Your task to perform on an android device: Open CNN.com Image 0: 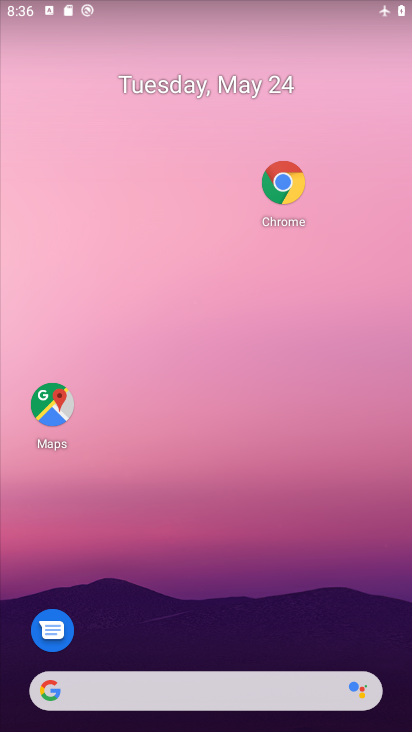
Step 0: drag from (191, 694) to (245, 55)
Your task to perform on an android device: Open CNN.com Image 1: 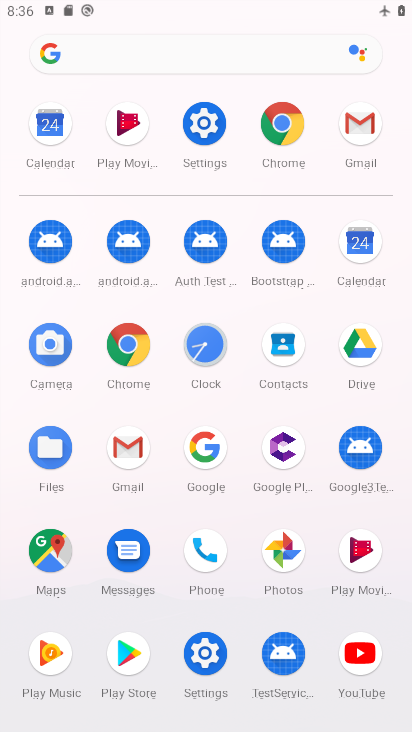
Step 1: click (136, 358)
Your task to perform on an android device: Open CNN.com Image 2: 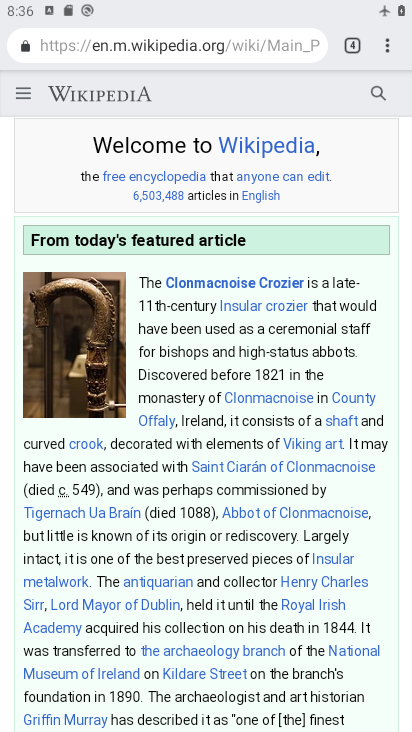
Step 2: click (188, 58)
Your task to perform on an android device: Open CNN.com Image 3: 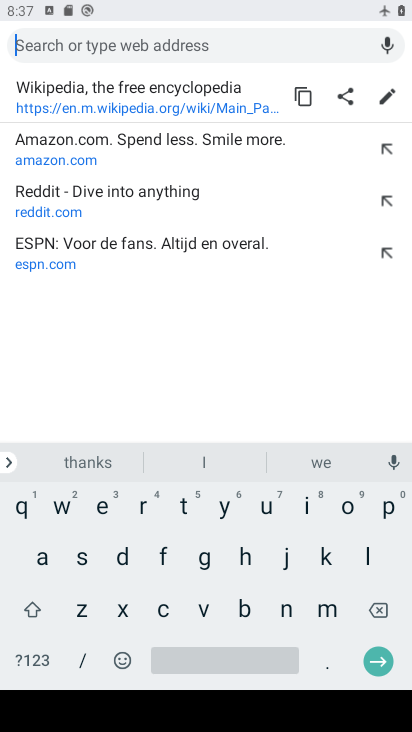
Step 3: click (163, 613)
Your task to perform on an android device: Open CNN.com Image 4: 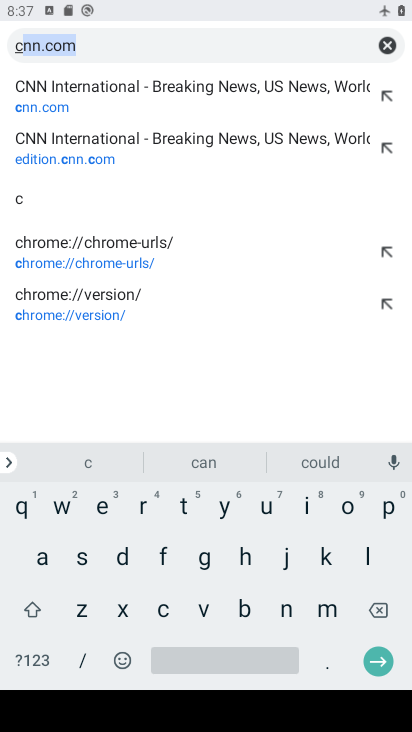
Step 4: click (100, 41)
Your task to perform on an android device: Open CNN.com Image 5: 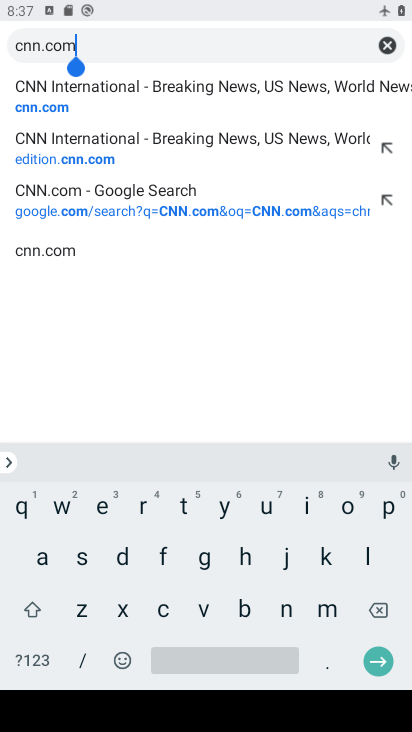
Step 5: click (378, 665)
Your task to perform on an android device: Open CNN.com Image 6: 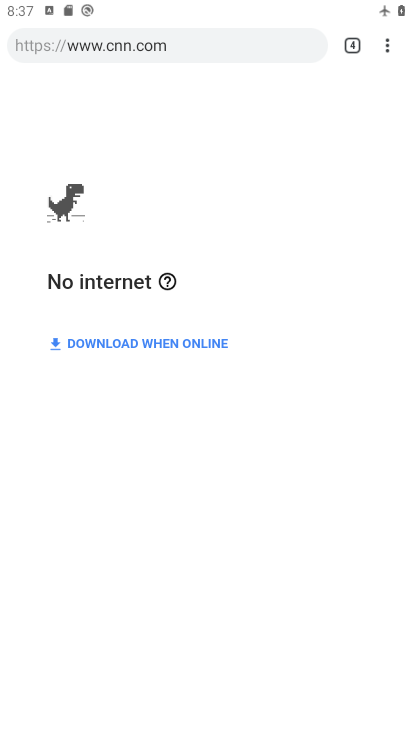
Step 6: press home button
Your task to perform on an android device: Open CNN.com Image 7: 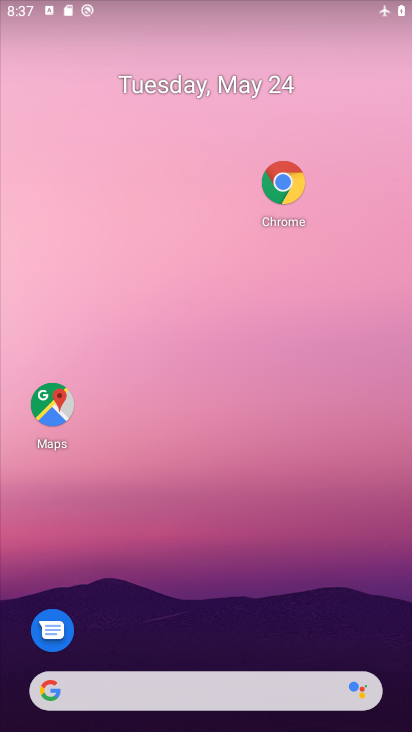
Step 7: drag from (209, 707) to (283, 114)
Your task to perform on an android device: Open CNN.com Image 8: 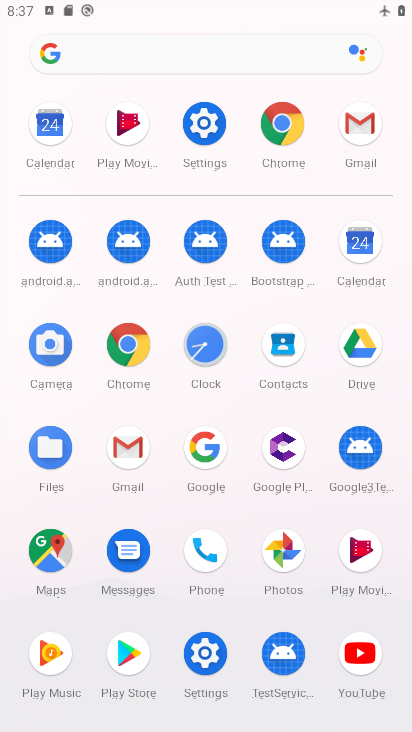
Step 8: click (202, 124)
Your task to perform on an android device: Open CNN.com Image 9: 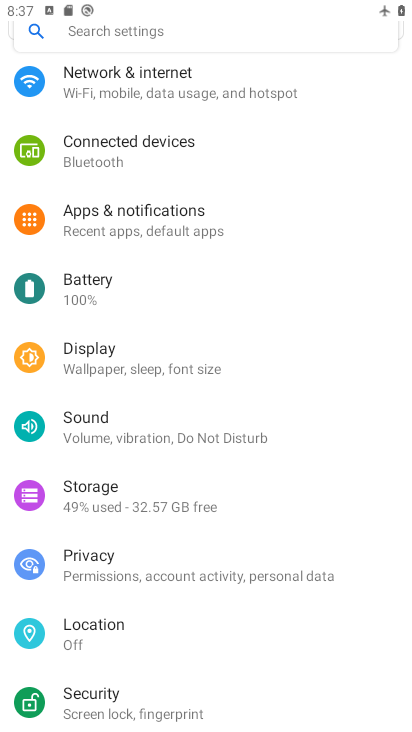
Step 9: click (150, 96)
Your task to perform on an android device: Open CNN.com Image 10: 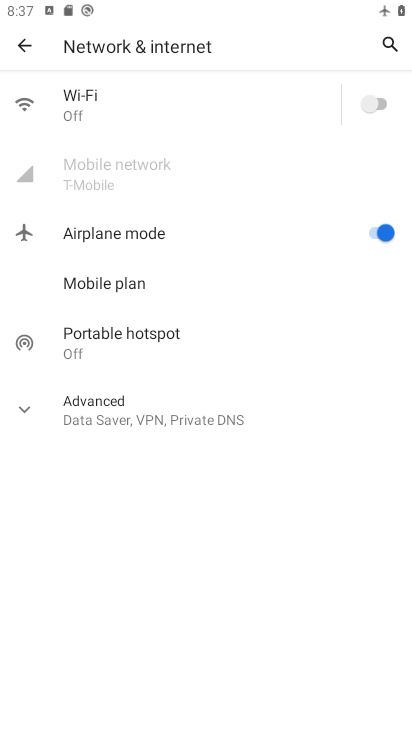
Step 10: click (376, 236)
Your task to perform on an android device: Open CNN.com Image 11: 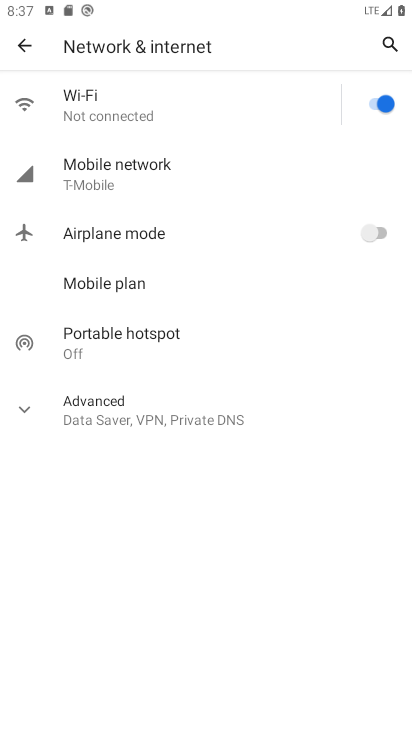
Step 11: click (377, 103)
Your task to perform on an android device: Open CNN.com Image 12: 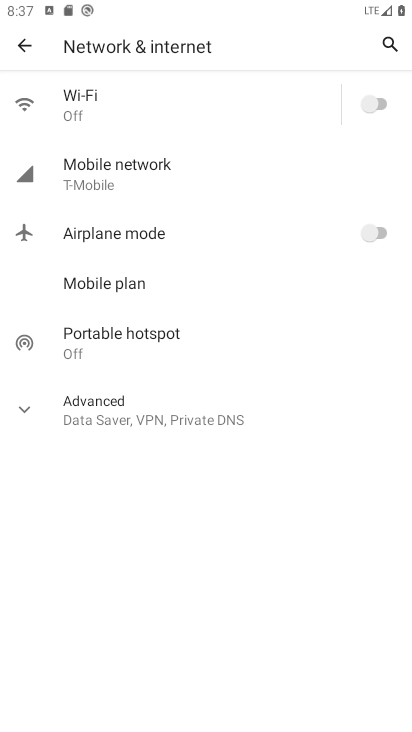
Step 12: click (377, 103)
Your task to perform on an android device: Open CNN.com Image 13: 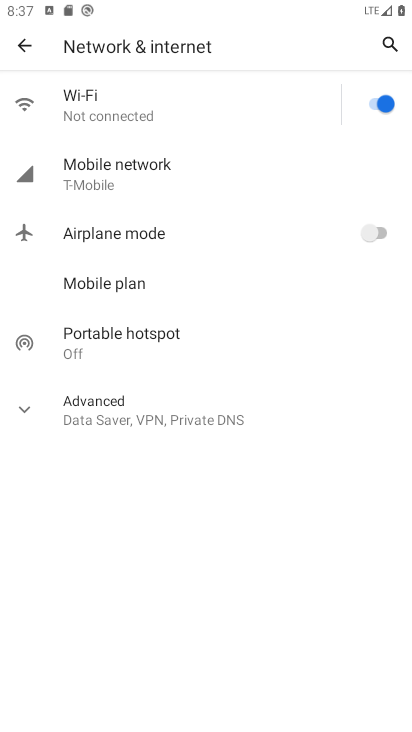
Step 13: press home button
Your task to perform on an android device: Open CNN.com Image 14: 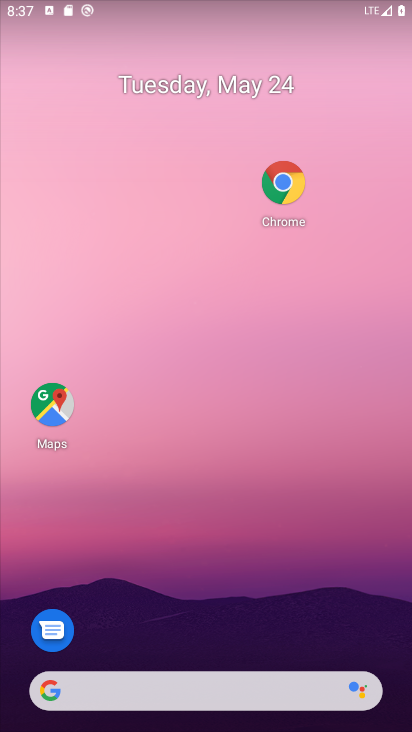
Step 14: drag from (205, 716) to (328, 96)
Your task to perform on an android device: Open CNN.com Image 15: 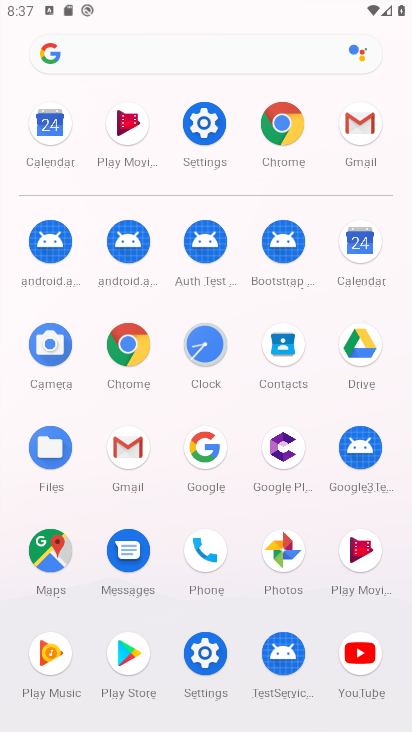
Step 15: click (261, 124)
Your task to perform on an android device: Open CNN.com Image 16: 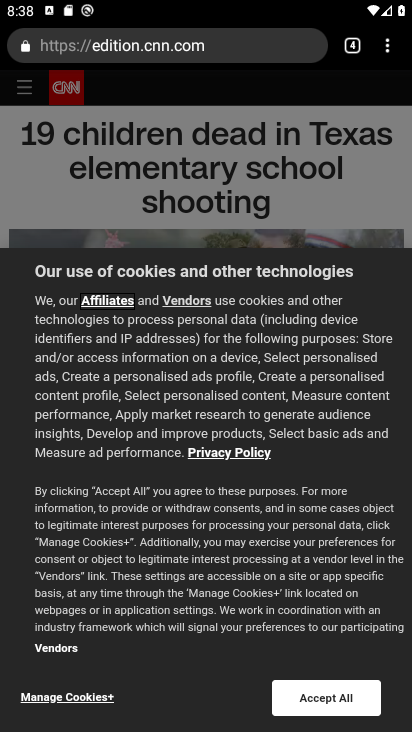
Step 16: click (302, 690)
Your task to perform on an android device: Open CNN.com Image 17: 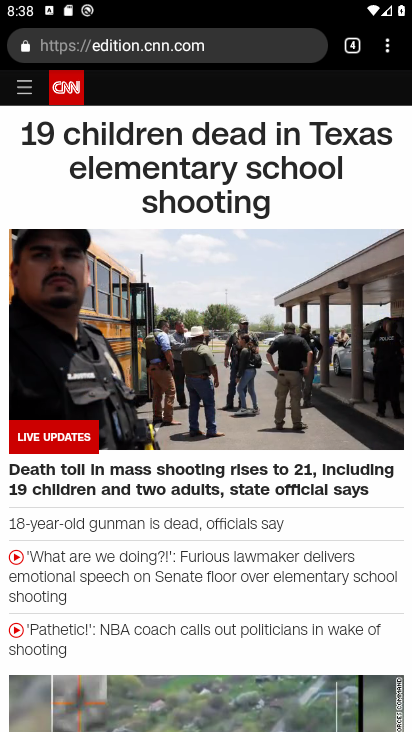
Step 17: task complete